Your task to perform on an android device: Set the phone to "Do not disturb". Image 0: 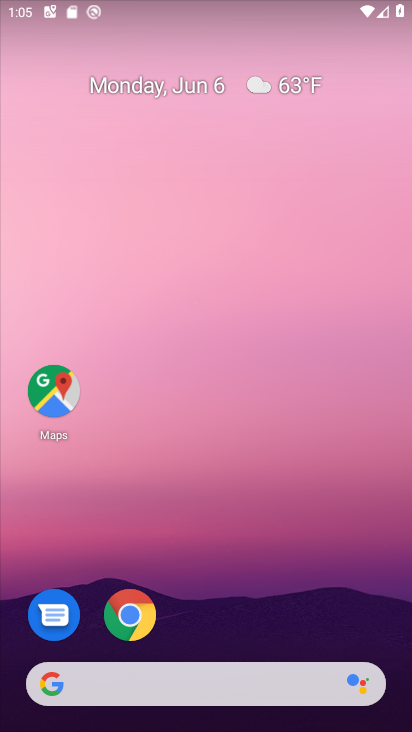
Step 0: drag from (271, 607) to (266, 39)
Your task to perform on an android device: Set the phone to "Do not disturb". Image 1: 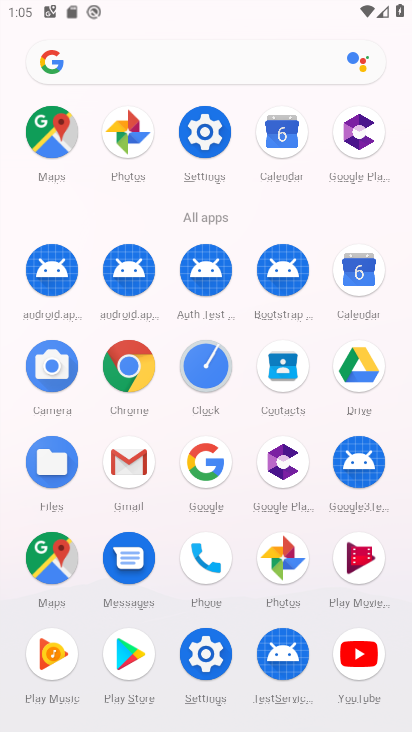
Step 1: click (204, 126)
Your task to perform on an android device: Set the phone to "Do not disturb". Image 2: 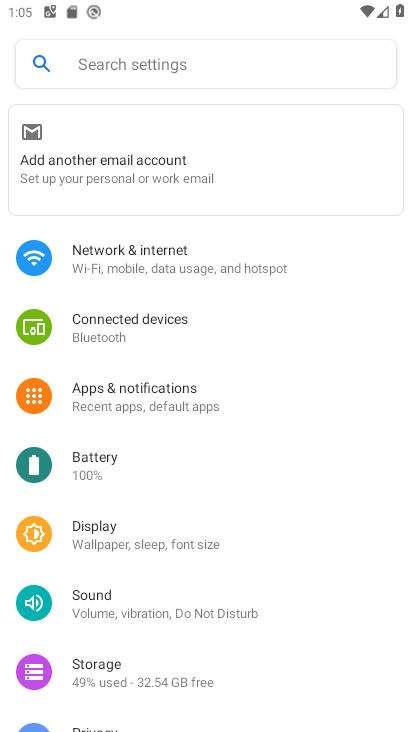
Step 2: click (76, 601)
Your task to perform on an android device: Set the phone to "Do not disturb". Image 3: 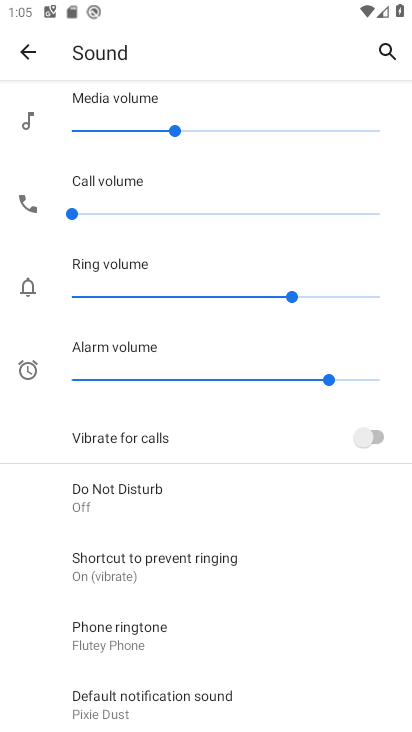
Step 3: click (166, 494)
Your task to perform on an android device: Set the phone to "Do not disturb". Image 4: 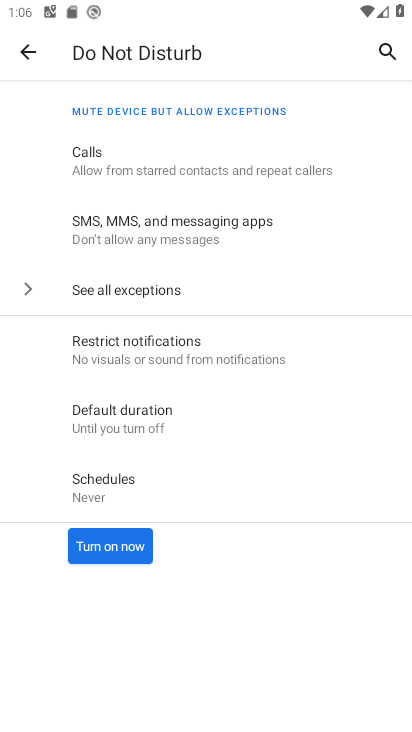
Step 4: click (114, 549)
Your task to perform on an android device: Set the phone to "Do not disturb". Image 5: 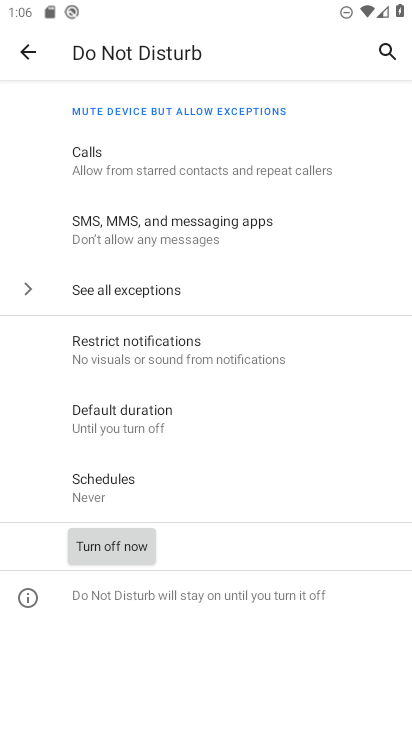
Step 5: task complete